Your task to perform on an android device: turn on improve location accuracy Image 0: 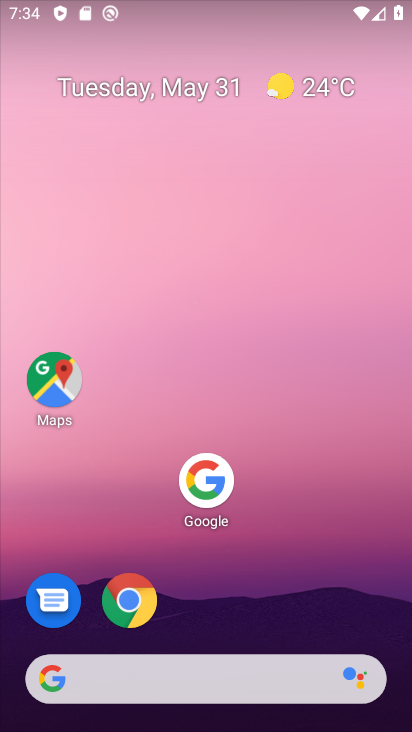
Step 0: drag from (215, 670) to (330, 86)
Your task to perform on an android device: turn on improve location accuracy Image 1: 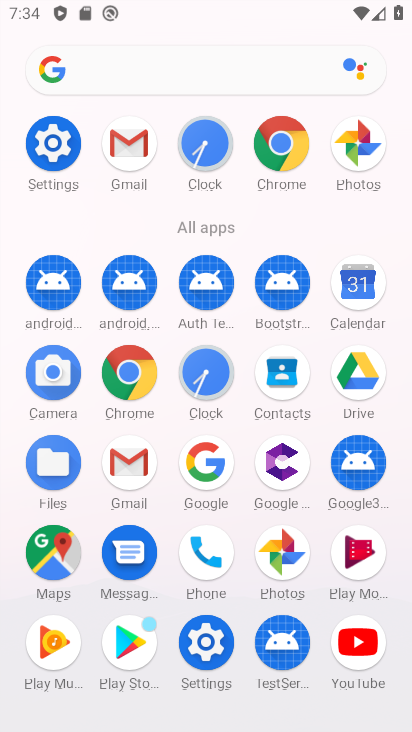
Step 1: click (60, 148)
Your task to perform on an android device: turn on improve location accuracy Image 2: 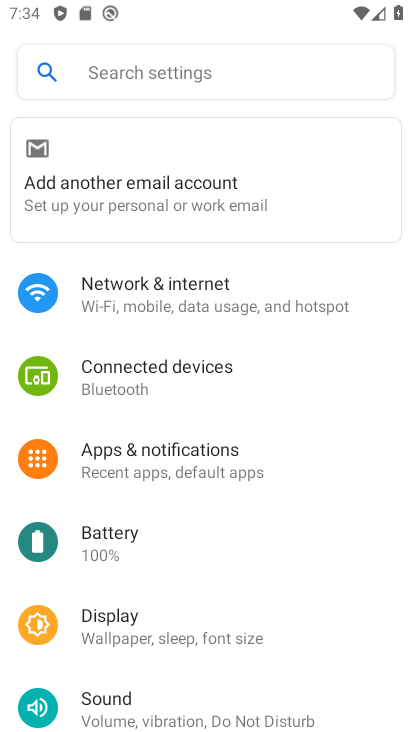
Step 2: drag from (214, 590) to (321, 159)
Your task to perform on an android device: turn on improve location accuracy Image 3: 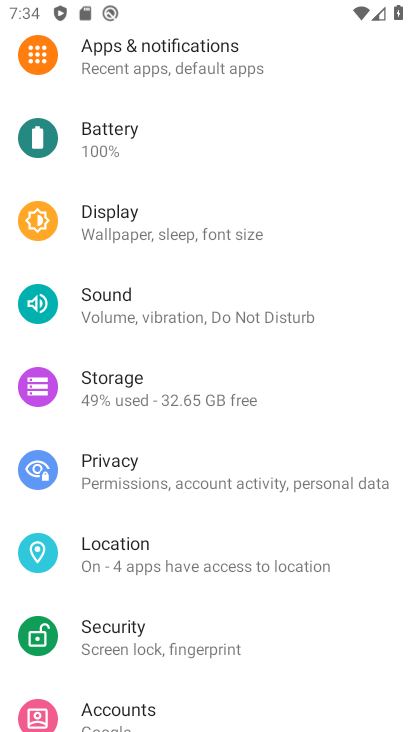
Step 3: click (164, 553)
Your task to perform on an android device: turn on improve location accuracy Image 4: 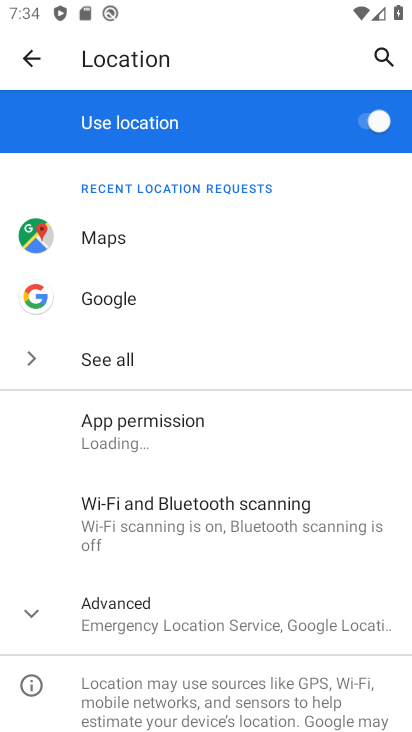
Step 4: click (135, 606)
Your task to perform on an android device: turn on improve location accuracy Image 5: 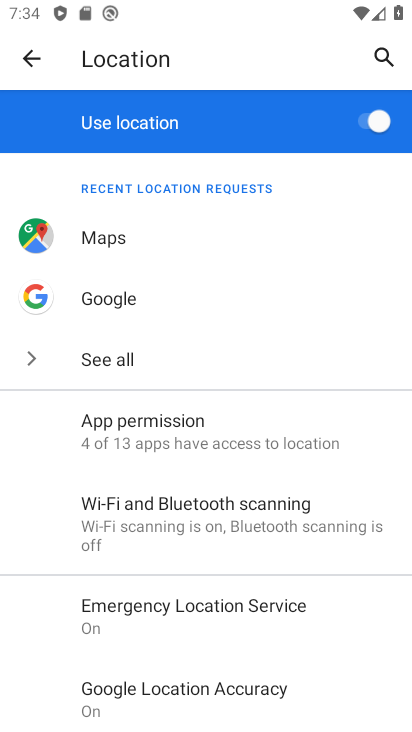
Step 5: drag from (175, 570) to (272, 249)
Your task to perform on an android device: turn on improve location accuracy Image 6: 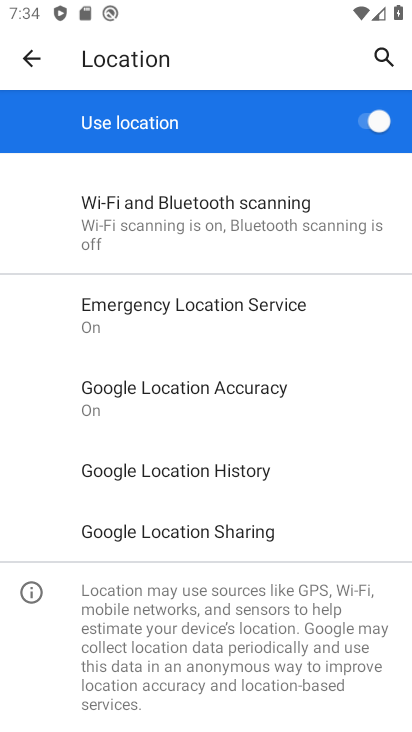
Step 6: click (186, 396)
Your task to perform on an android device: turn on improve location accuracy Image 7: 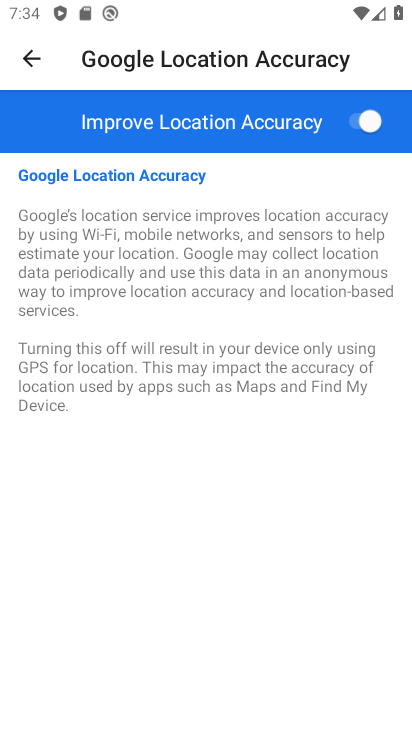
Step 7: task complete